Your task to perform on an android device: Open Google Chrome and click the shortcut for Amazon.com Image 0: 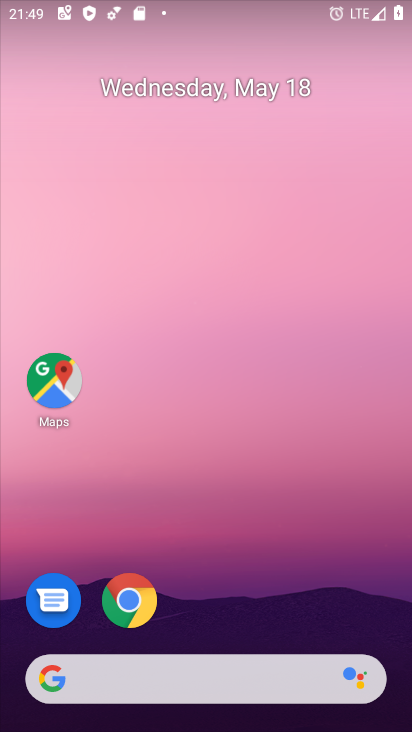
Step 0: click (145, 597)
Your task to perform on an android device: Open Google Chrome and click the shortcut for Amazon.com Image 1: 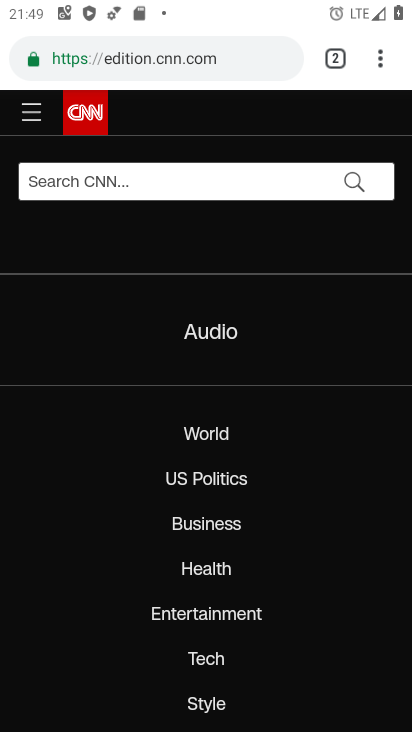
Step 1: click (373, 42)
Your task to perform on an android device: Open Google Chrome and click the shortcut for Amazon.com Image 2: 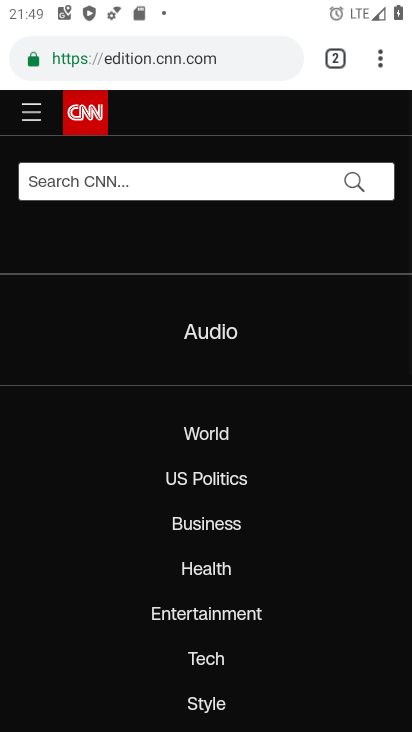
Step 2: click (300, 52)
Your task to perform on an android device: Open Google Chrome and click the shortcut for Amazon.com Image 3: 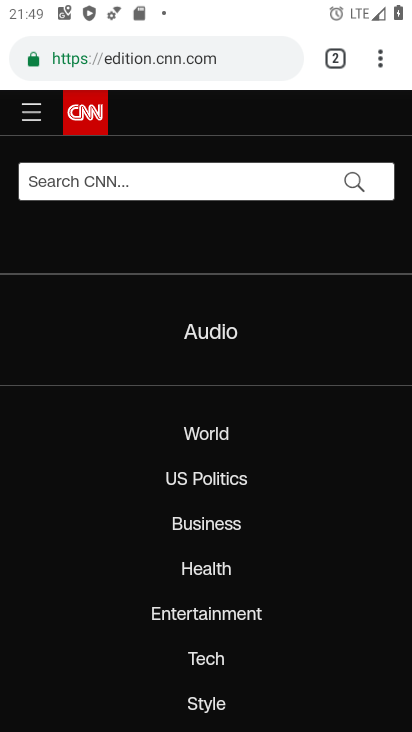
Step 3: click (325, 55)
Your task to perform on an android device: Open Google Chrome and click the shortcut for Amazon.com Image 4: 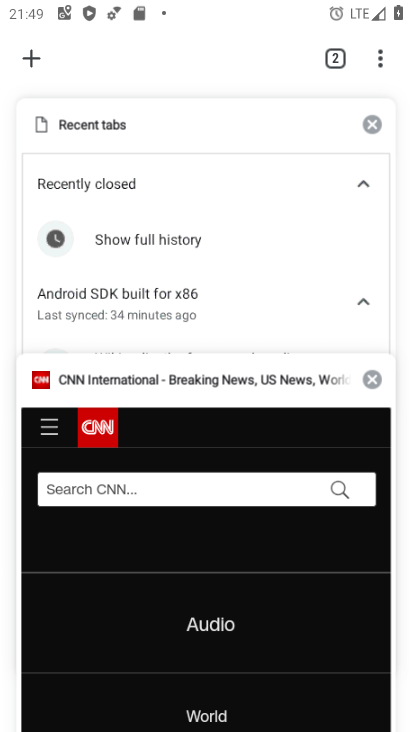
Step 4: click (27, 49)
Your task to perform on an android device: Open Google Chrome and click the shortcut for Amazon.com Image 5: 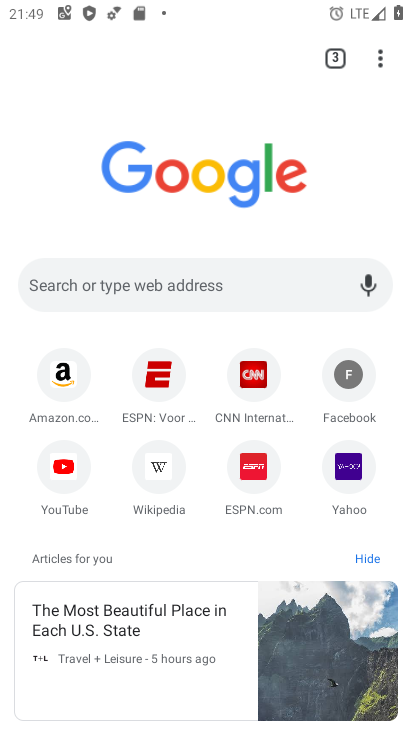
Step 5: click (62, 374)
Your task to perform on an android device: Open Google Chrome and click the shortcut for Amazon.com Image 6: 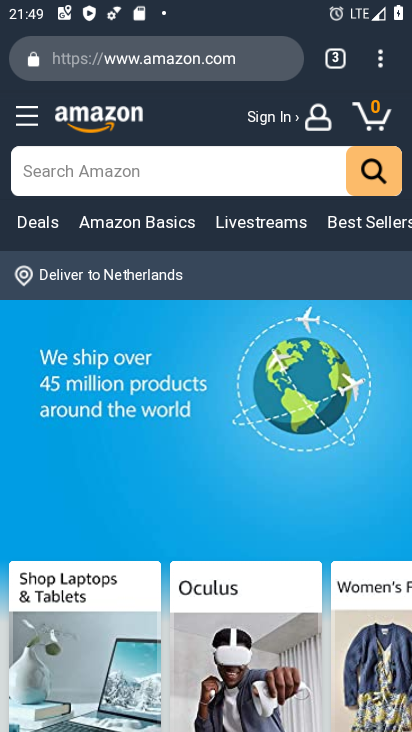
Step 6: task complete